Your task to perform on an android device: toggle location history Image 0: 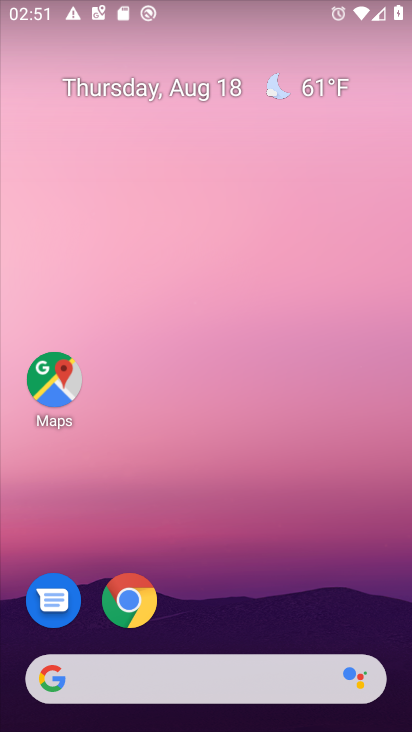
Step 0: press home button
Your task to perform on an android device: toggle location history Image 1: 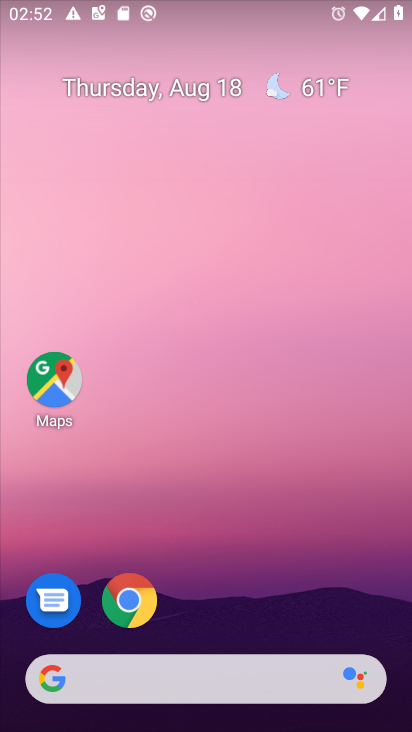
Step 1: drag from (260, 629) to (304, 14)
Your task to perform on an android device: toggle location history Image 2: 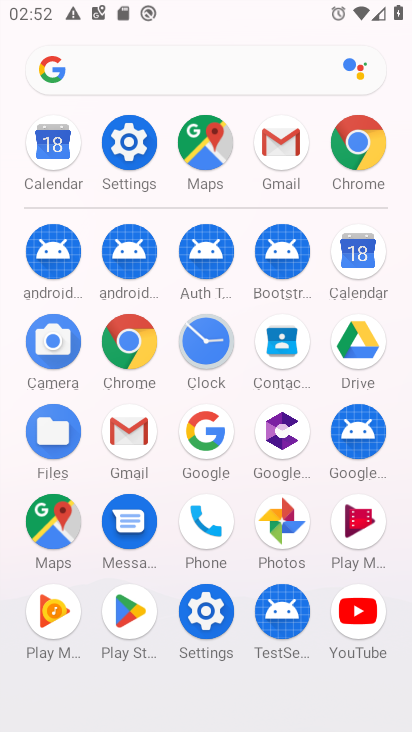
Step 2: click (112, 147)
Your task to perform on an android device: toggle location history Image 3: 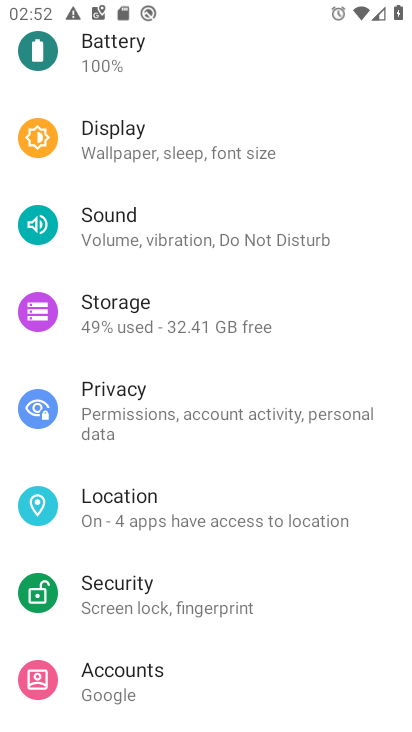
Step 3: click (110, 517)
Your task to perform on an android device: toggle location history Image 4: 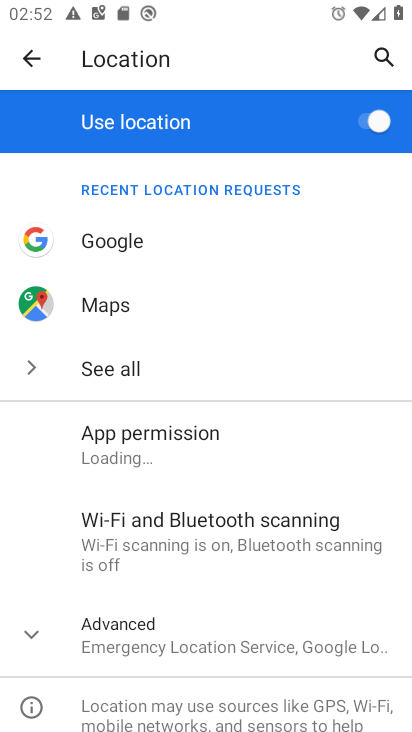
Step 4: click (131, 636)
Your task to perform on an android device: toggle location history Image 5: 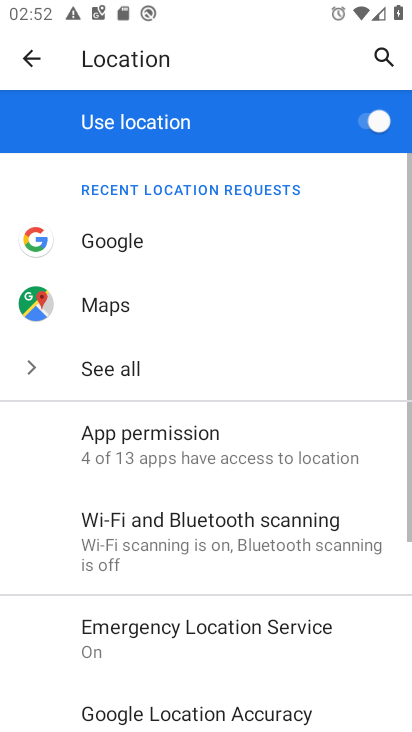
Step 5: drag from (296, 663) to (369, 329)
Your task to perform on an android device: toggle location history Image 6: 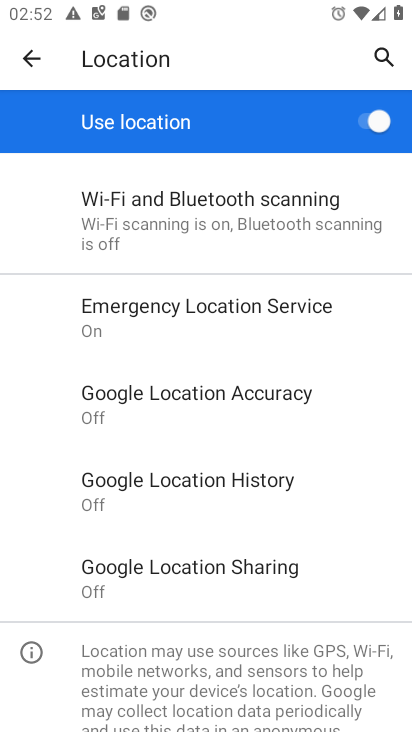
Step 6: click (225, 489)
Your task to perform on an android device: toggle location history Image 7: 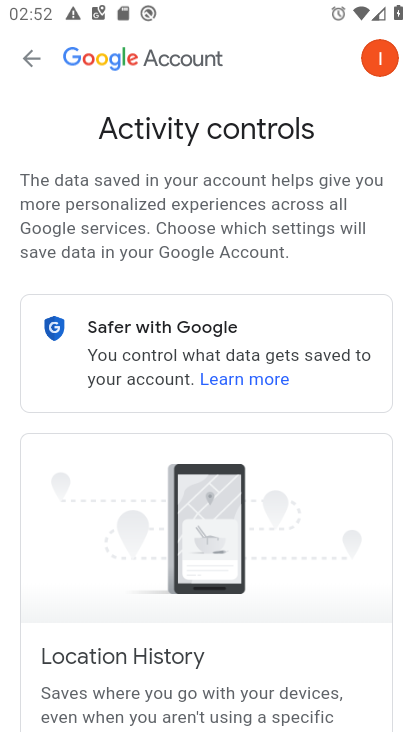
Step 7: drag from (309, 653) to (361, 94)
Your task to perform on an android device: toggle location history Image 8: 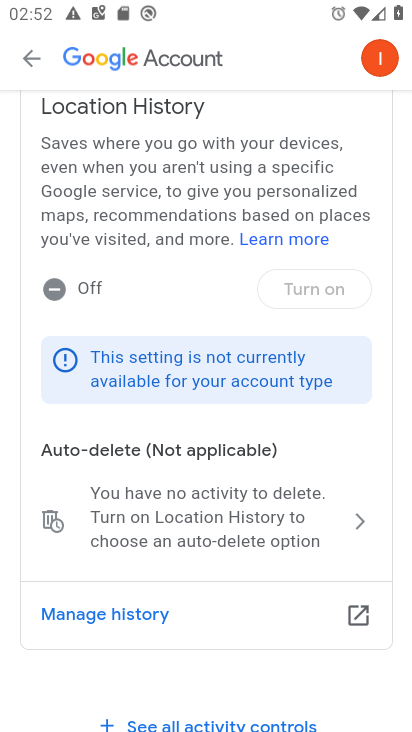
Step 8: click (301, 292)
Your task to perform on an android device: toggle location history Image 9: 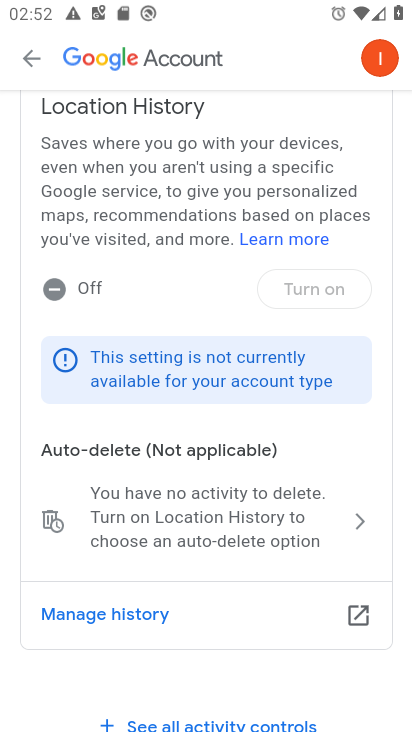
Step 9: task complete